Your task to perform on an android device: remove spam from my inbox in the gmail app Image 0: 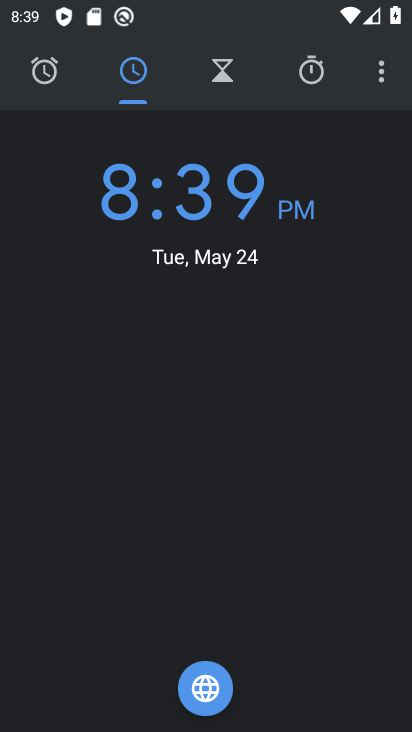
Step 0: press home button
Your task to perform on an android device: remove spam from my inbox in the gmail app Image 1: 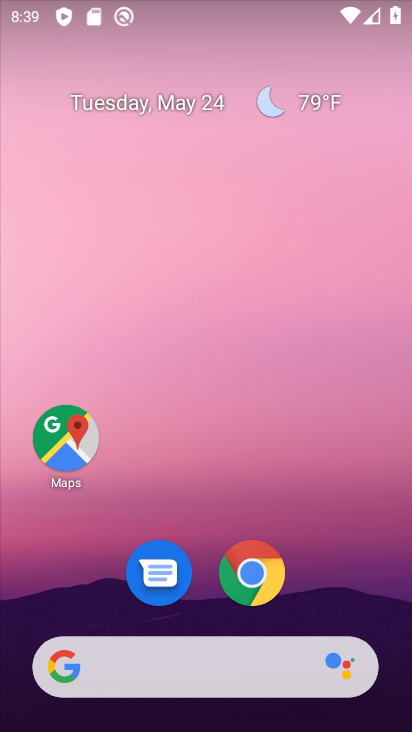
Step 1: drag from (375, 604) to (310, 90)
Your task to perform on an android device: remove spam from my inbox in the gmail app Image 2: 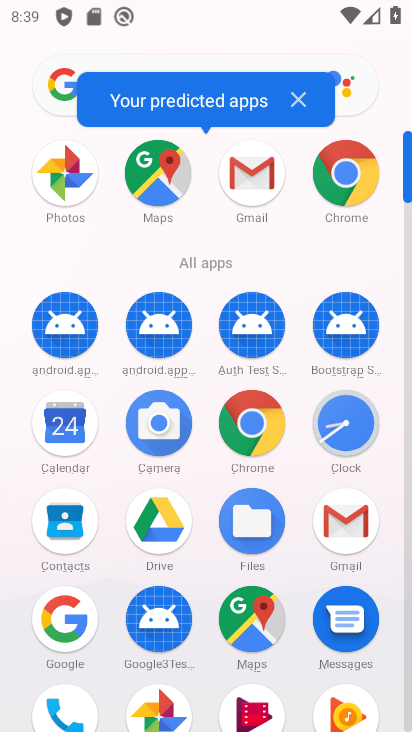
Step 2: click (407, 696)
Your task to perform on an android device: remove spam from my inbox in the gmail app Image 3: 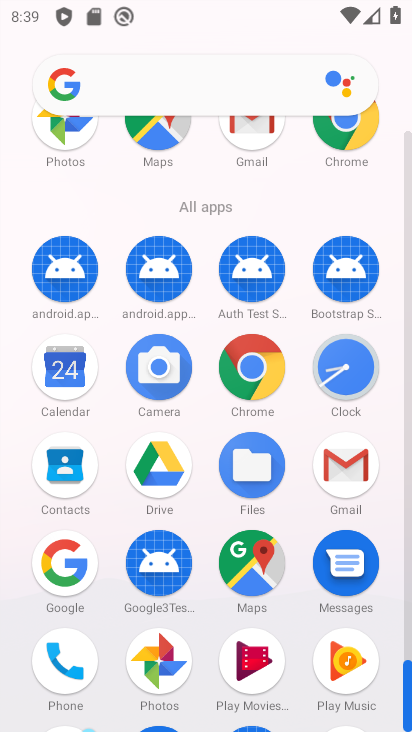
Step 3: click (346, 463)
Your task to perform on an android device: remove spam from my inbox in the gmail app Image 4: 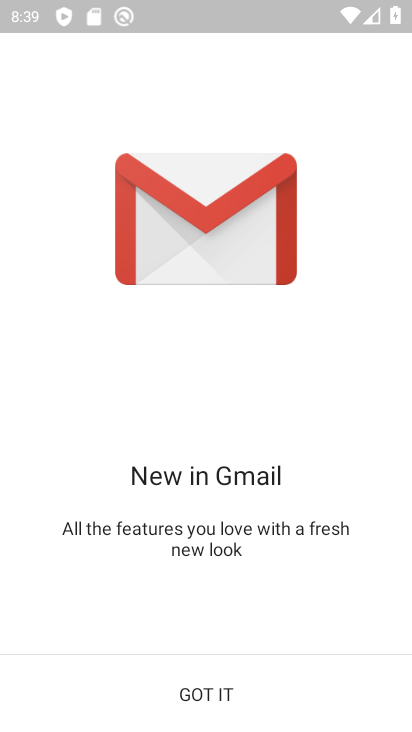
Step 4: click (197, 679)
Your task to perform on an android device: remove spam from my inbox in the gmail app Image 5: 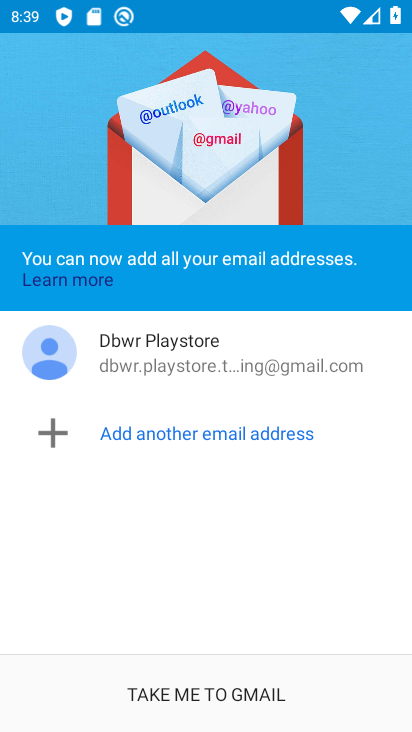
Step 5: click (197, 679)
Your task to perform on an android device: remove spam from my inbox in the gmail app Image 6: 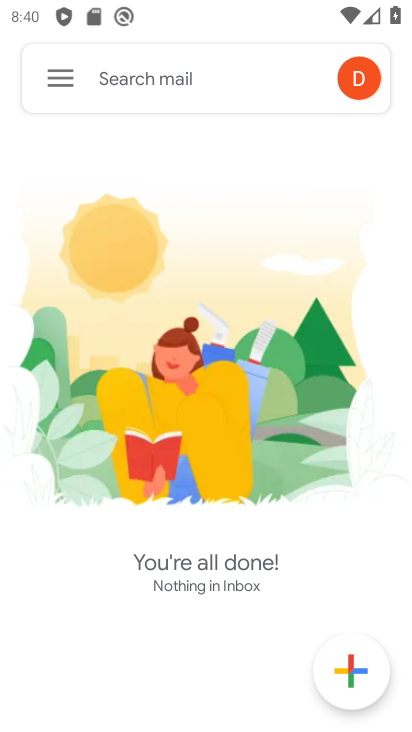
Step 6: click (59, 75)
Your task to perform on an android device: remove spam from my inbox in the gmail app Image 7: 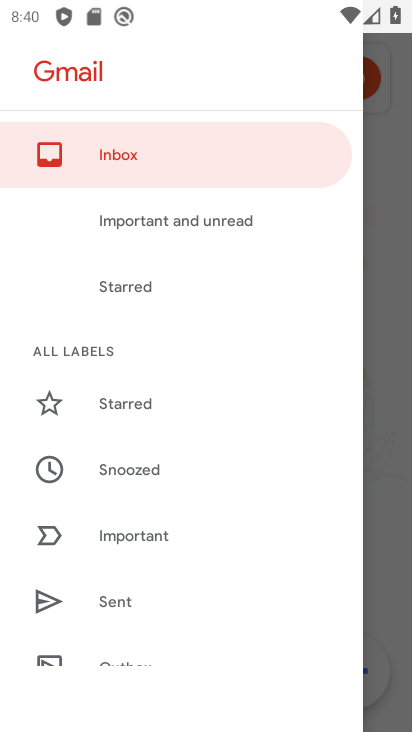
Step 7: drag from (208, 623) to (204, 210)
Your task to perform on an android device: remove spam from my inbox in the gmail app Image 8: 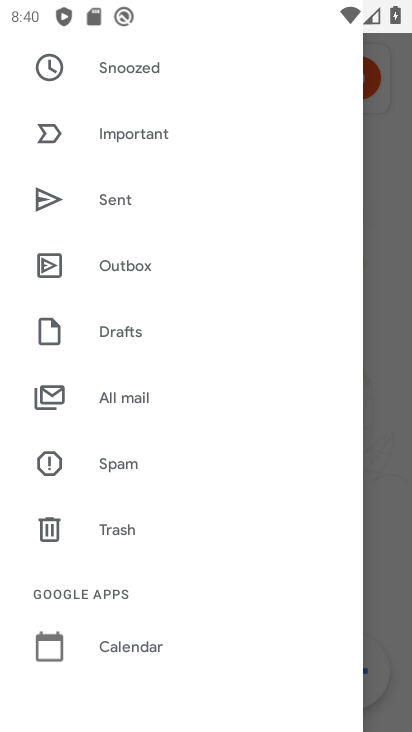
Step 8: click (106, 459)
Your task to perform on an android device: remove spam from my inbox in the gmail app Image 9: 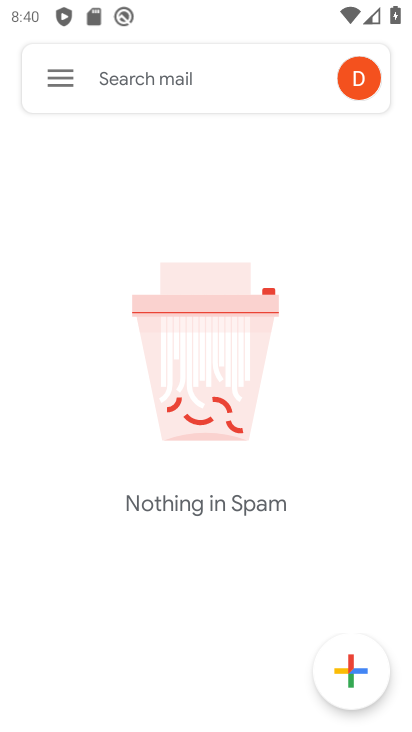
Step 9: task complete